Your task to perform on an android device: Open sound settings Image 0: 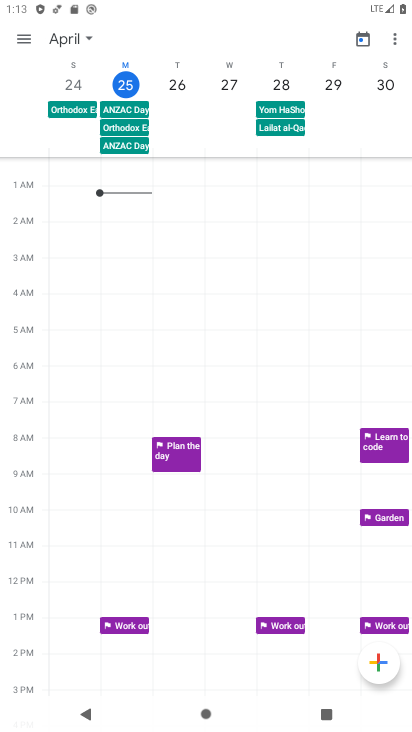
Step 0: press home button
Your task to perform on an android device: Open sound settings Image 1: 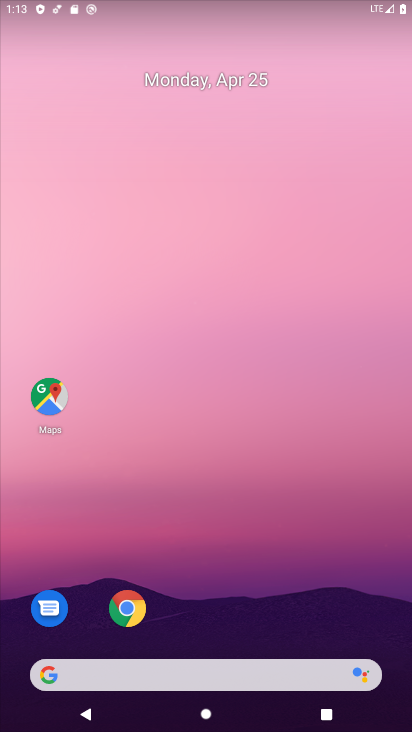
Step 1: drag from (209, 445) to (194, 153)
Your task to perform on an android device: Open sound settings Image 2: 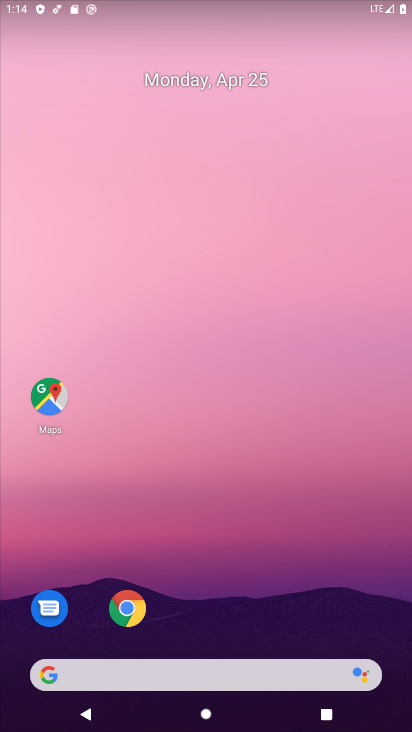
Step 2: drag from (189, 631) to (199, 249)
Your task to perform on an android device: Open sound settings Image 3: 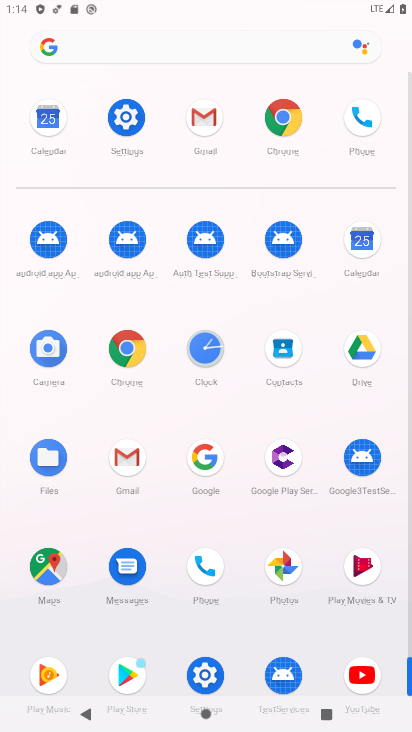
Step 3: click (119, 130)
Your task to perform on an android device: Open sound settings Image 4: 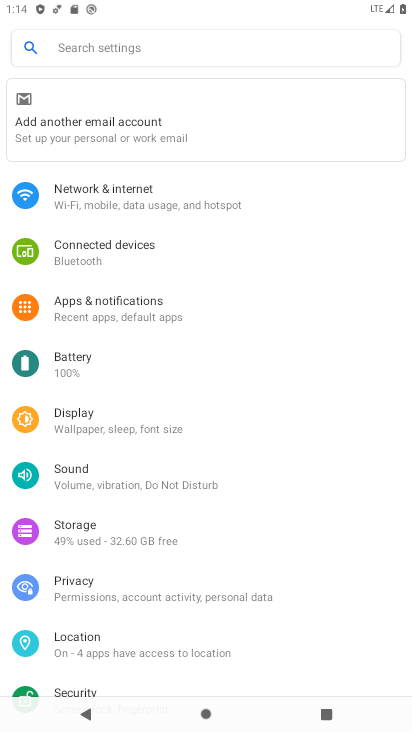
Step 4: click (158, 462)
Your task to perform on an android device: Open sound settings Image 5: 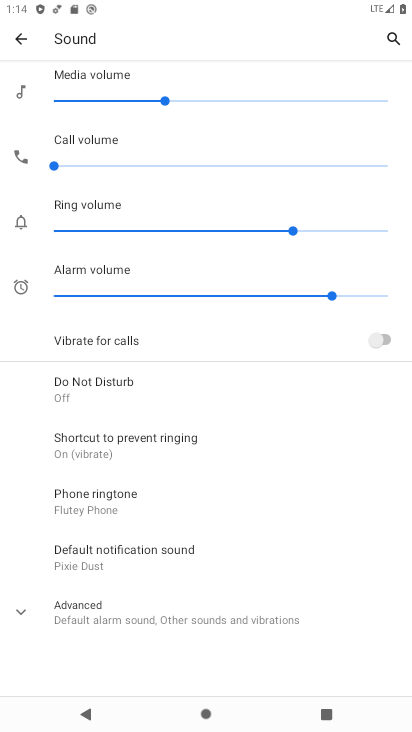
Step 5: task complete